Your task to perform on an android device: Open the Play Movies app and select the watchlist tab. Image 0: 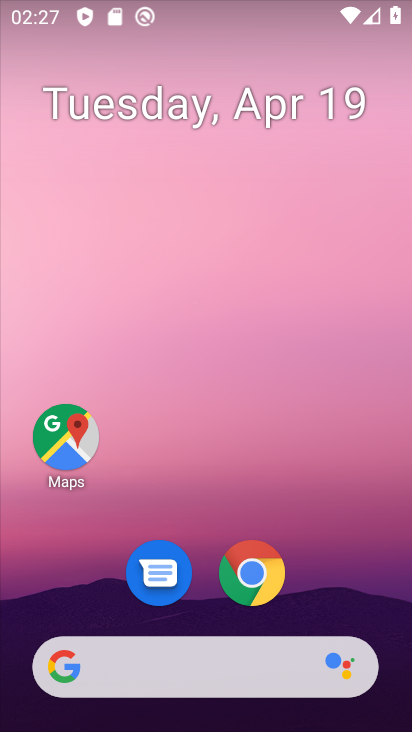
Step 0: drag from (382, 617) to (410, 654)
Your task to perform on an android device: Open the Play Movies app and select the watchlist tab. Image 1: 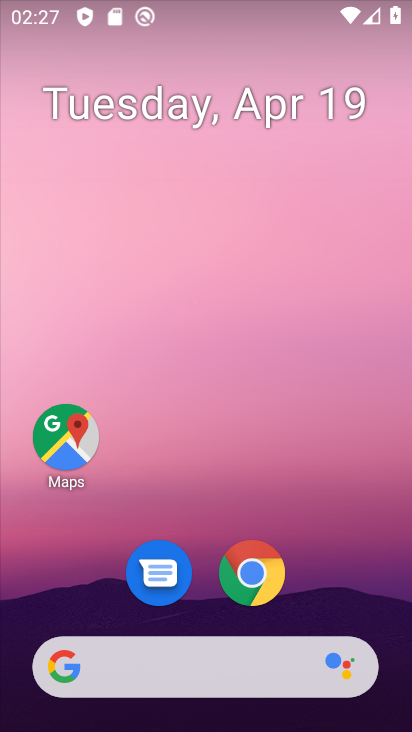
Step 1: click (378, 673)
Your task to perform on an android device: Open the Play Movies app and select the watchlist tab. Image 2: 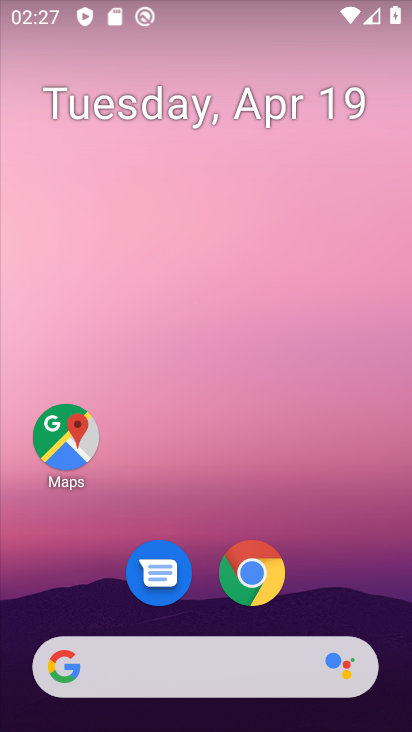
Step 2: click (345, 716)
Your task to perform on an android device: Open the Play Movies app and select the watchlist tab. Image 3: 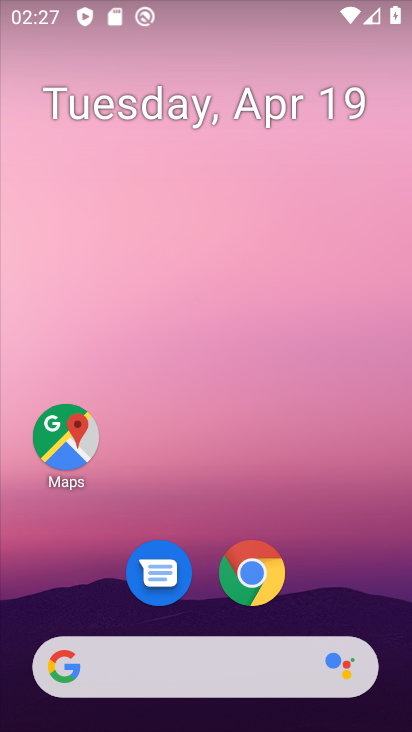
Step 3: drag from (346, 606) to (350, 99)
Your task to perform on an android device: Open the Play Movies app and select the watchlist tab. Image 4: 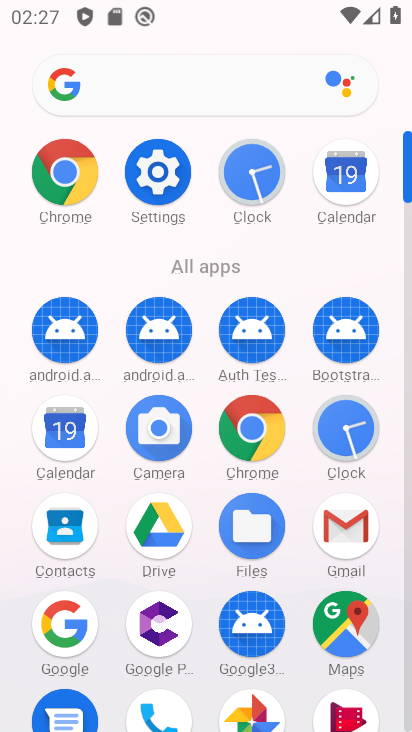
Step 4: click (351, 708)
Your task to perform on an android device: Open the Play Movies app and select the watchlist tab. Image 5: 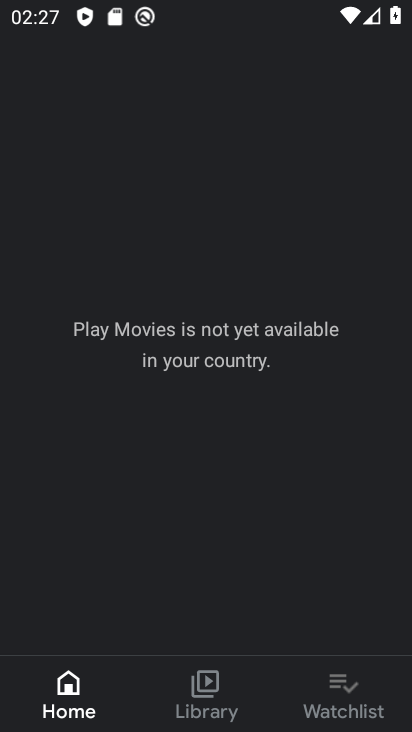
Step 5: click (350, 708)
Your task to perform on an android device: Open the Play Movies app and select the watchlist tab. Image 6: 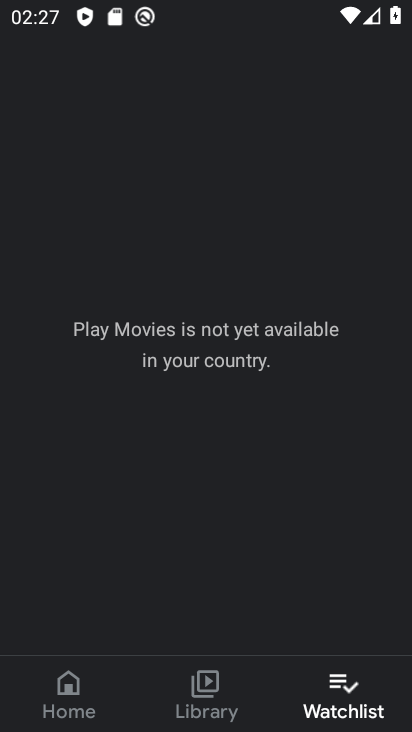
Step 6: task complete